Your task to perform on an android device: empty trash in the gmail app Image 0: 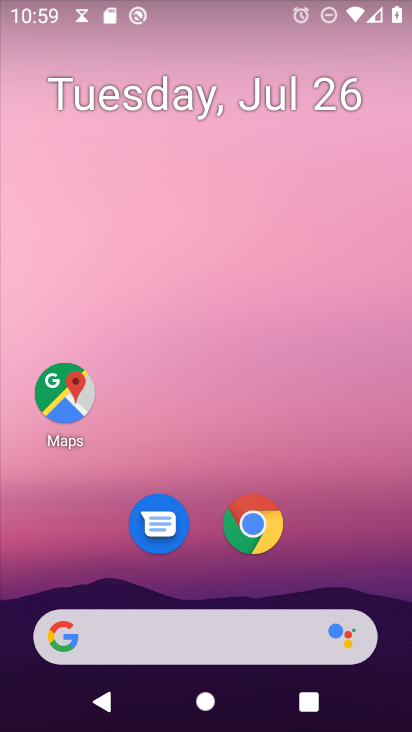
Step 0: drag from (202, 646) to (258, 27)
Your task to perform on an android device: empty trash in the gmail app Image 1: 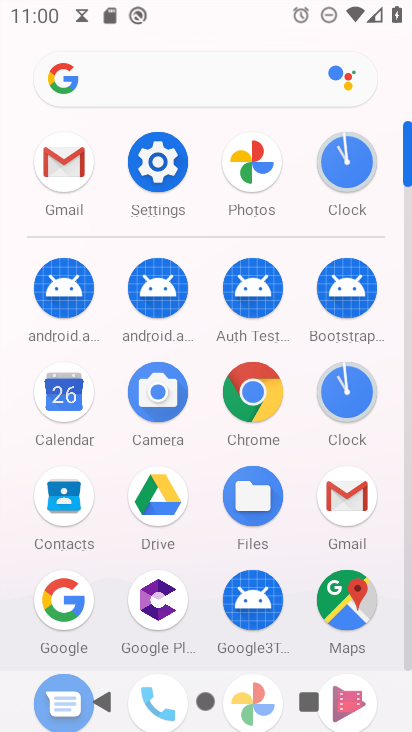
Step 1: click (67, 170)
Your task to perform on an android device: empty trash in the gmail app Image 2: 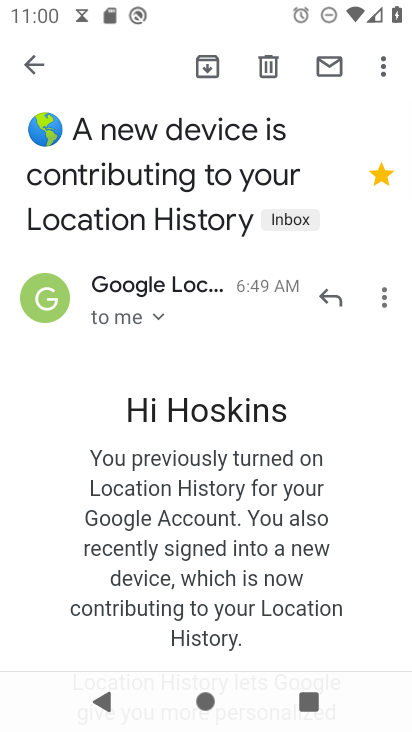
Step 2: click (35, 55)
Your task to perform on an android device: empty trash in the gmail app Image 3: 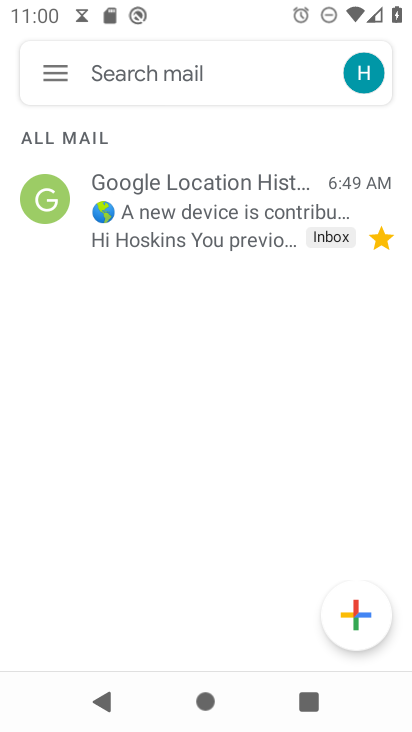
Step 3: click (52, 68)
Your task to perform on an android device: empty trash in the gmail app Image 4: 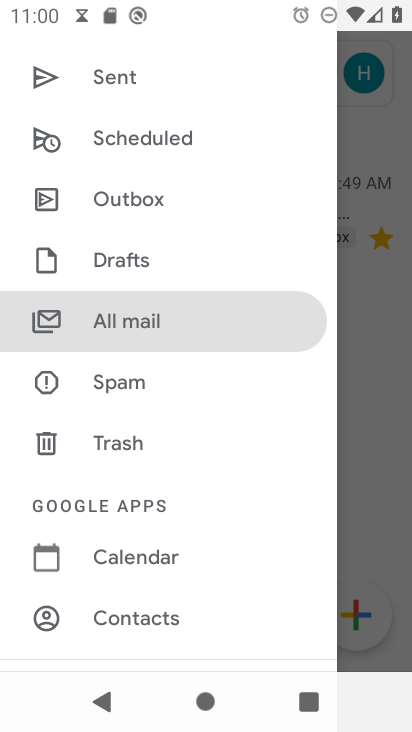
Step 4: click (129, 437)
Your task to perform on an android device: empty trash in the gmail app Image 5: 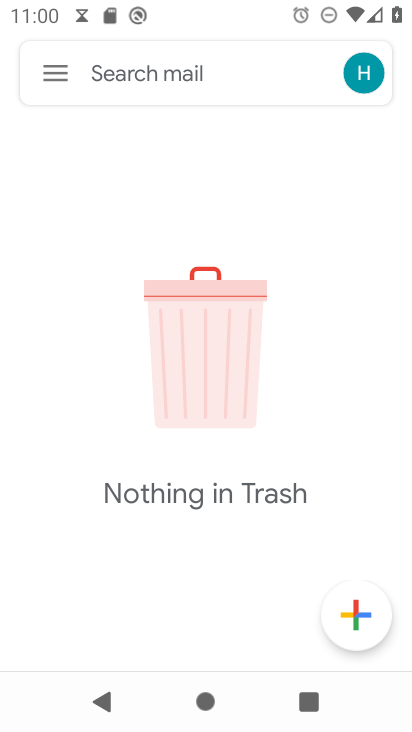
Step 5: task complete